Your task to perform on an android device: Open eBay Image 0: 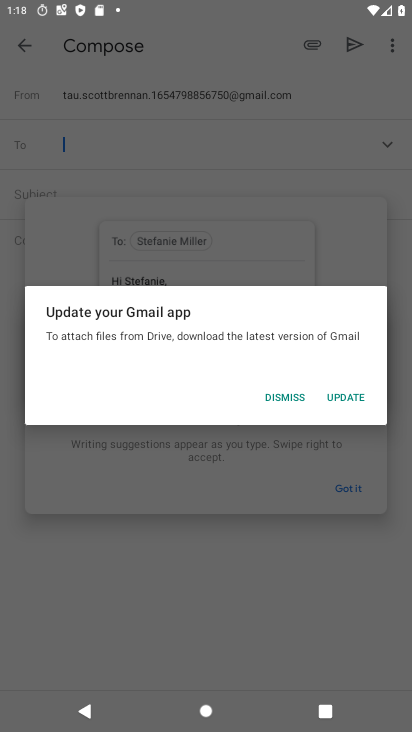
Step 0: press home button
Your task to perform on an android device: Open eBay Image 1: 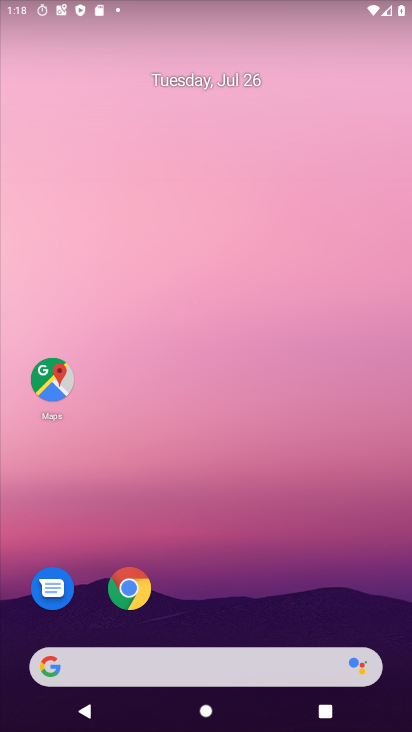
Step 1: click (137, 599)
Your task to perform on an android device: Open eBay Image 2: 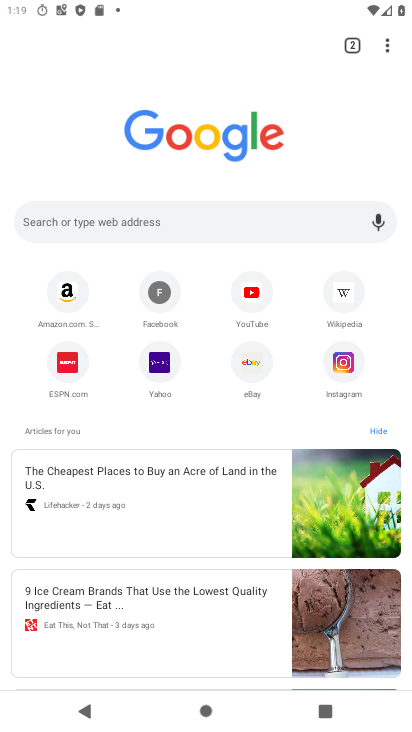
Step 2: click (244, 352)
Your task to perform on an android device: Open eBay Image 3: 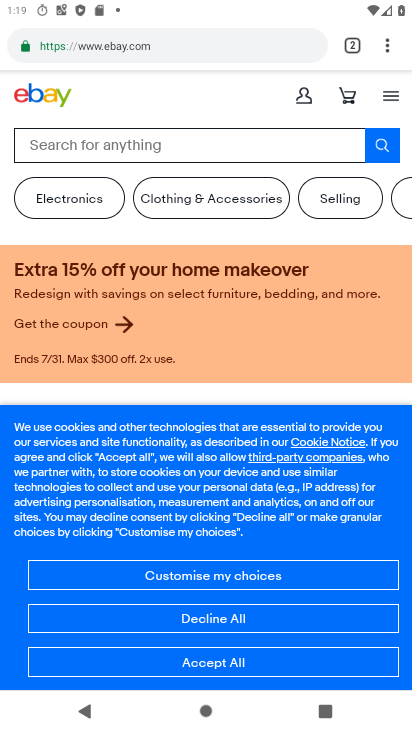
Step 3: task complete